Your task to perform on an android device: turn on location history Image 0: 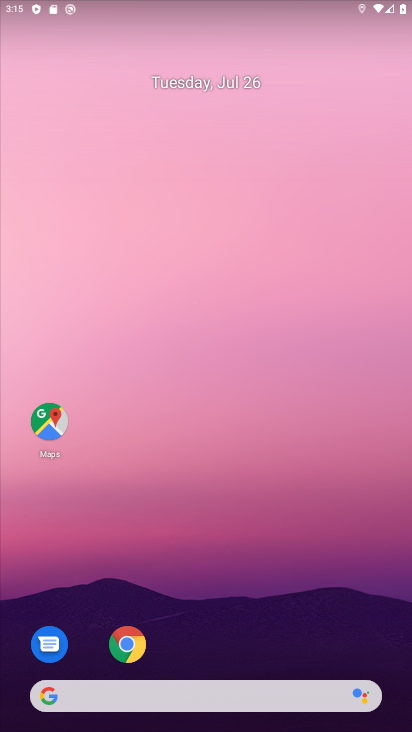
Step 0: drag from (212, 638) to (242, 255)
Your task to perform on an android device: turn on location history Image 1: 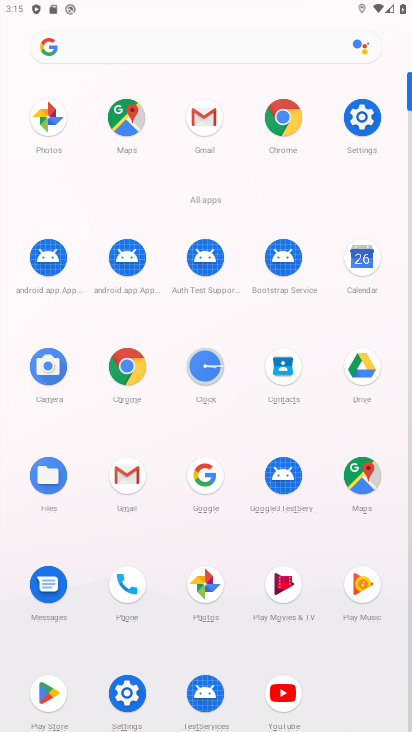
Step 1: click (118, 690)
Your task to perform on an android device: turn on location history Image 2: 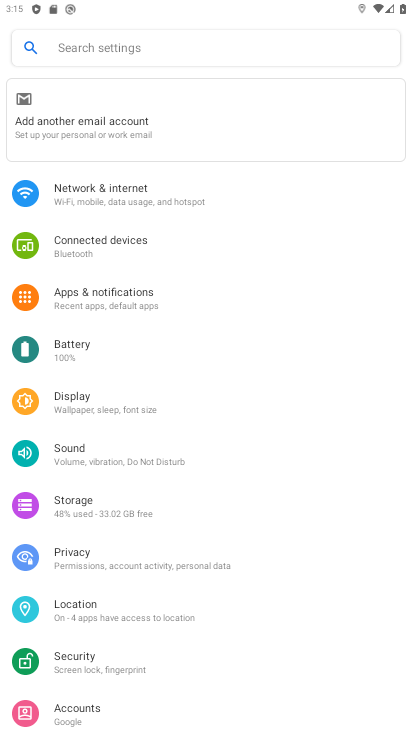
Step 2: click (101, 620)
Your task to perform on an android device: turn on location history Image 3: 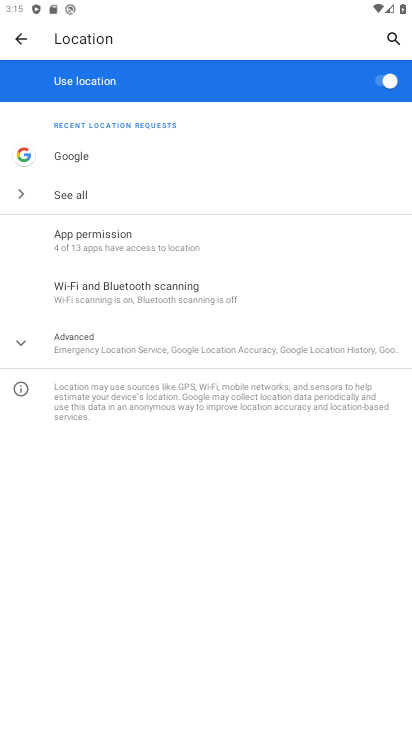
Step 3: click (140, 339)
Your task to perform on an android device: turn on location history Image 4: 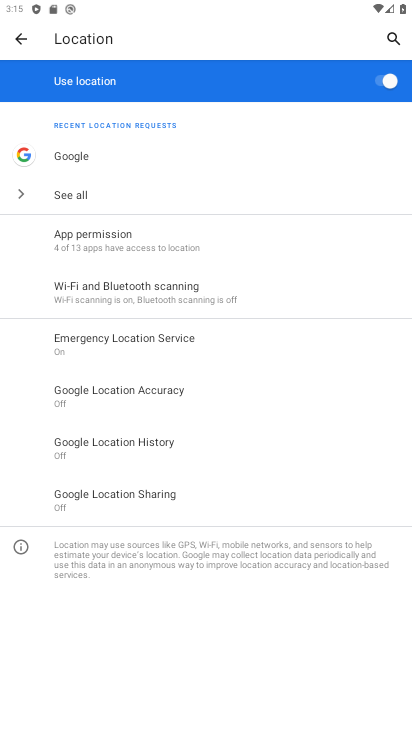
Step 4: click (161, 443)
Your task to perform on an android device: turn on location history Image 5: 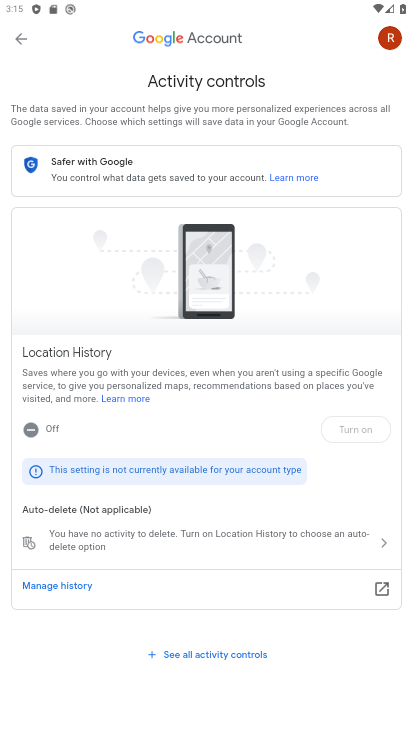
Step 5: task complete